Your task to perform on an android device: find which apps use the phone's location Image 0: 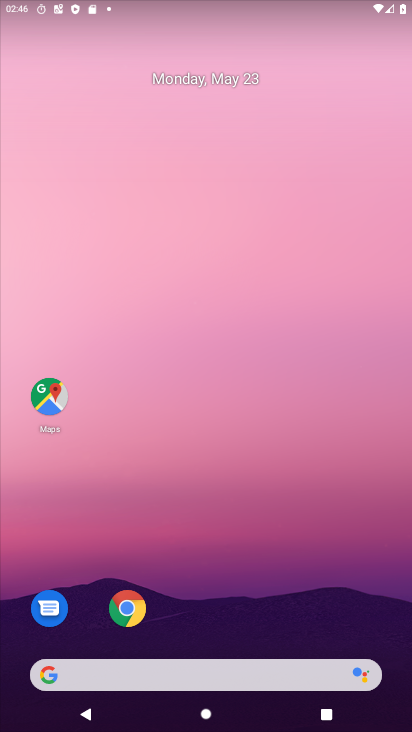
Step 0: drag from (208, 604) to (226, 11)
Your task to perform on an android device: find which apps use the phone's location Image 1: 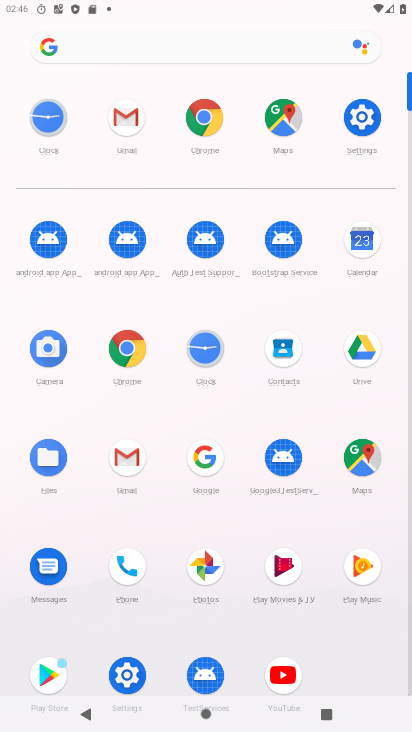
Step 1: click (364, 126)
Your task to perform on an android device: find which apps use the phone's location Image 2: 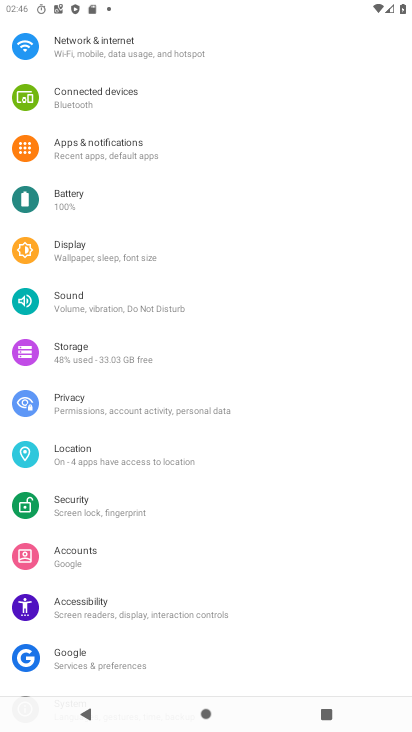
Step 2: click (133, 456)
Your task to perform on an android device: find which apps use the phone's location Image 3: 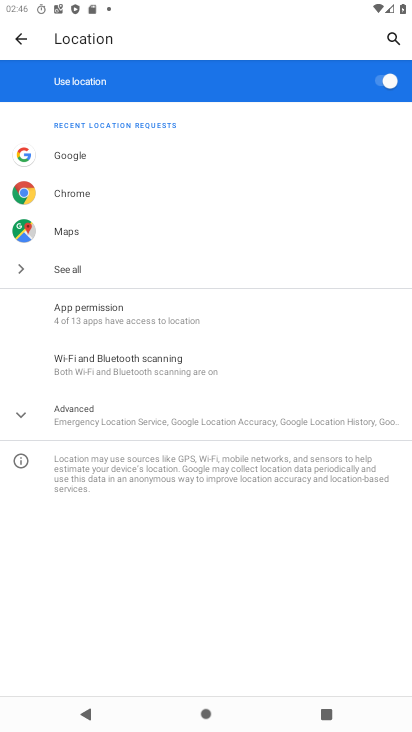
Step 3: click (151, 310)
Your task to perform on an android device: find which apps use the phone's location Image 4: 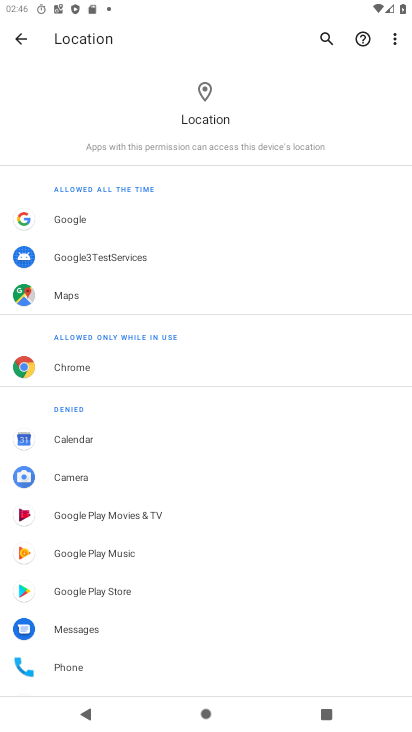
Step 4: task complete